Your task to perform on an android device: Open calendar and show me the third week of next month Image 0: 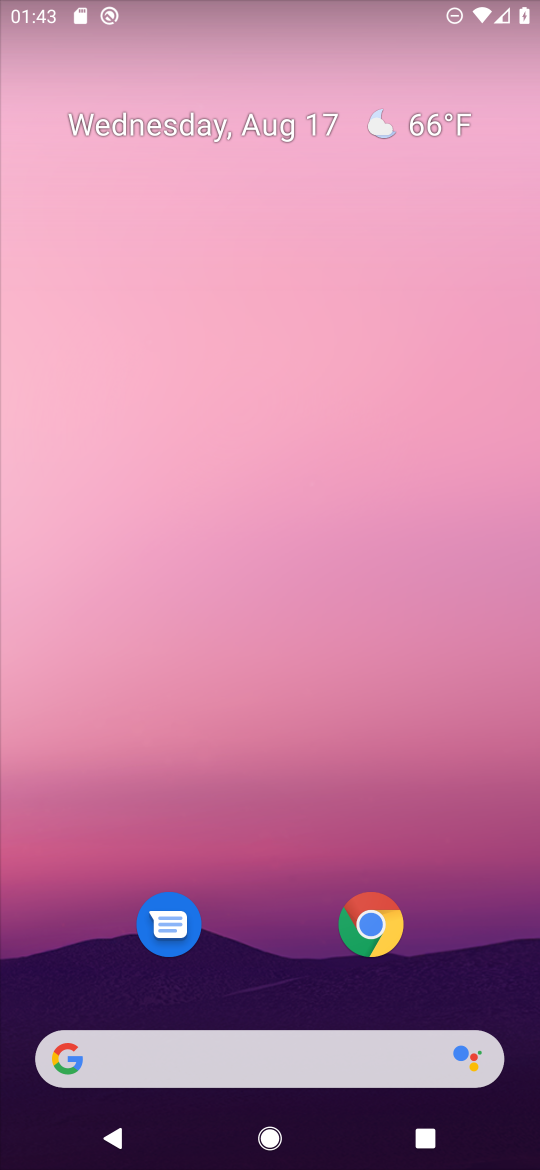
Step 0: click (286, 123)
Your task to perform on an android device: Open calendar and show me the third week of next month Image 1: 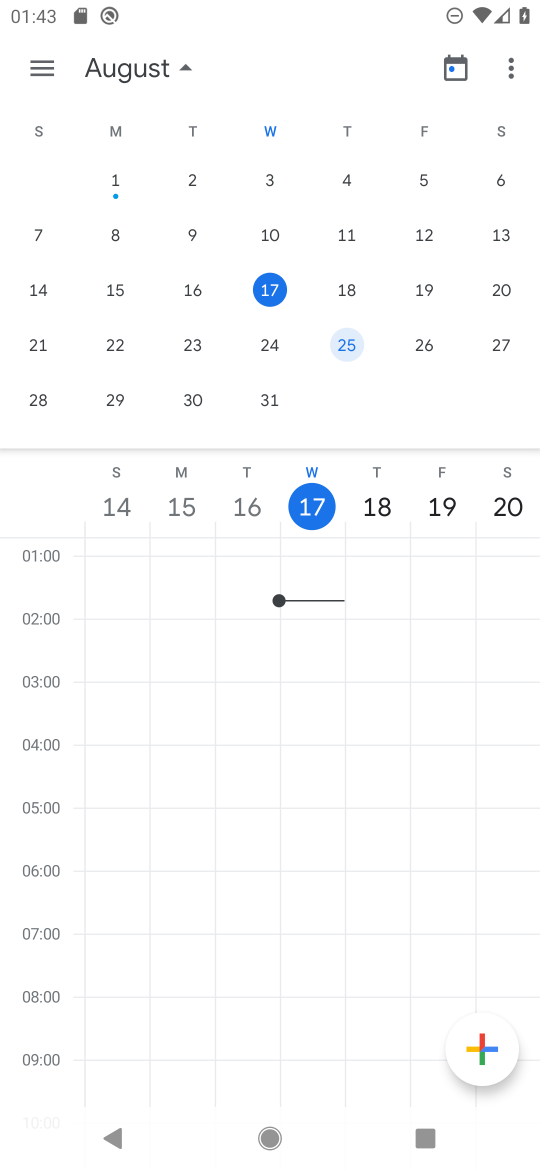
Step 1: drag from (411, 418) to (59, 370)
Your task to perform on an android device: Open calendar and show me the third week of next month Image 2: 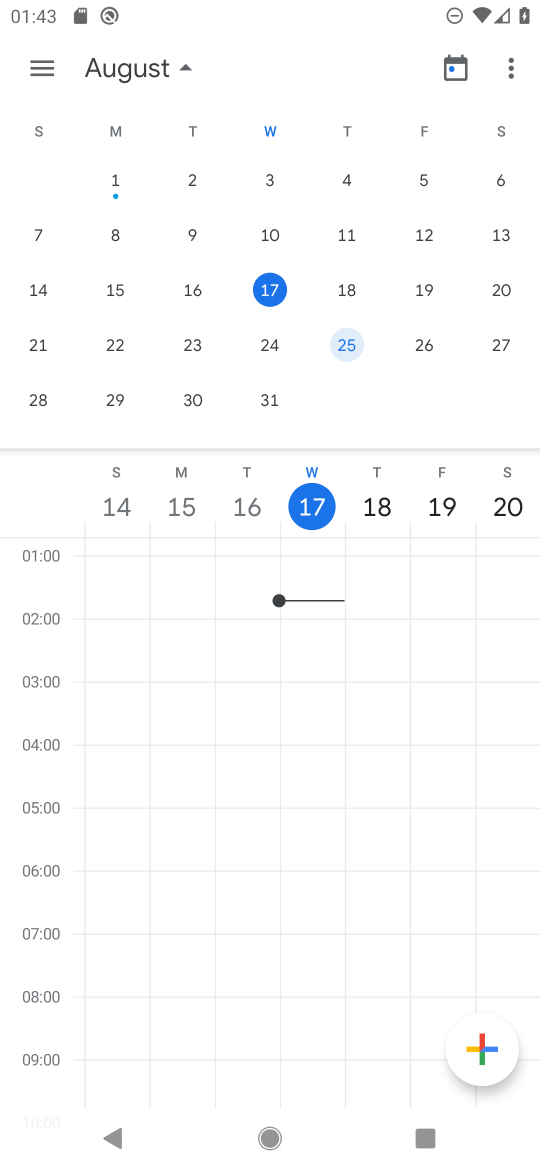
Step 2: drag from (526, 418) to (145, 381)
Your task to perform on an android device: Open calendar and show me the third week of next month Image 3: 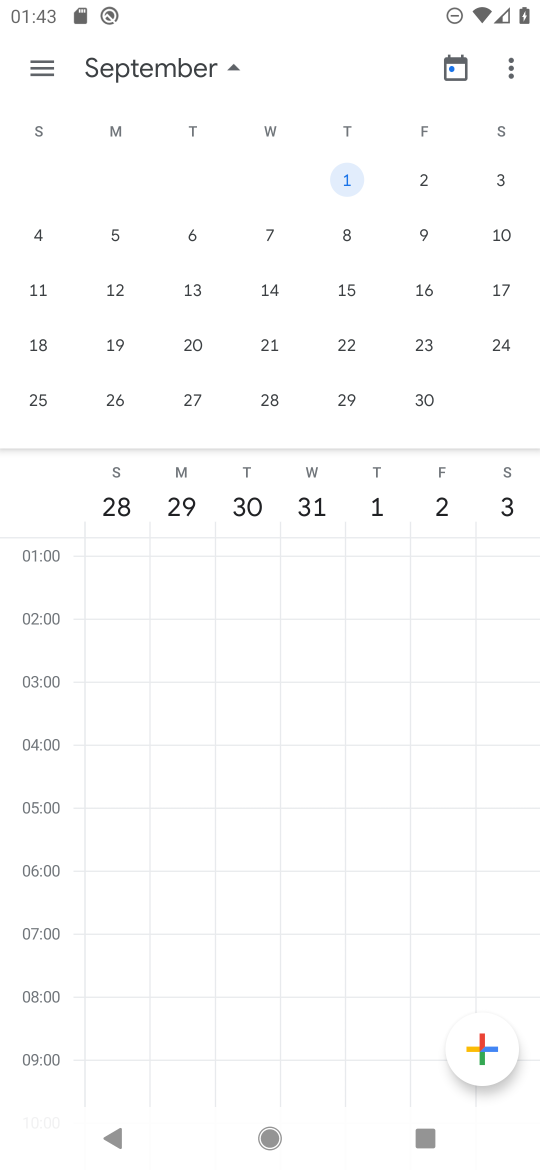
Step 3: click (353, 291)
Your task to perform on an android device: Open calendar and show me the third week of next month Image 4: 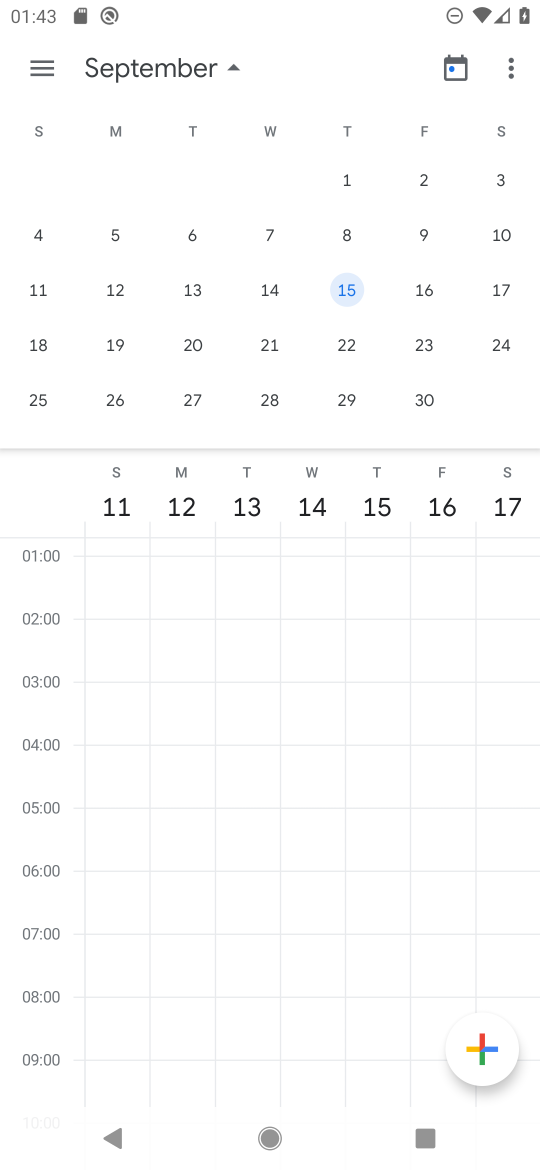
Step 4: task complete